Your task to perform on an android device: Open eBay Image 0: 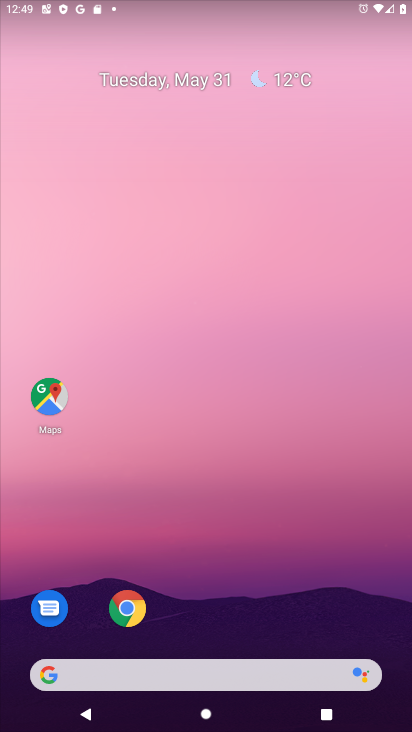
Step 0: drag from (228, 568) to (329, 20)
Your task to perform on an android device: Open eBay Image 1: 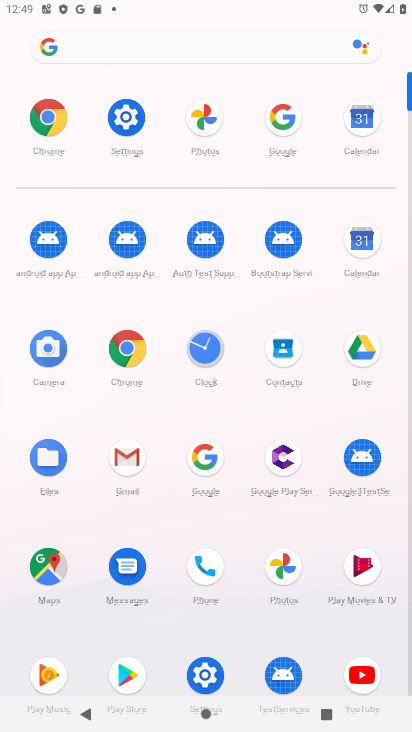
Step 1: click (208, 456)
Your task to perform on an android device: Open eBay Image 2: 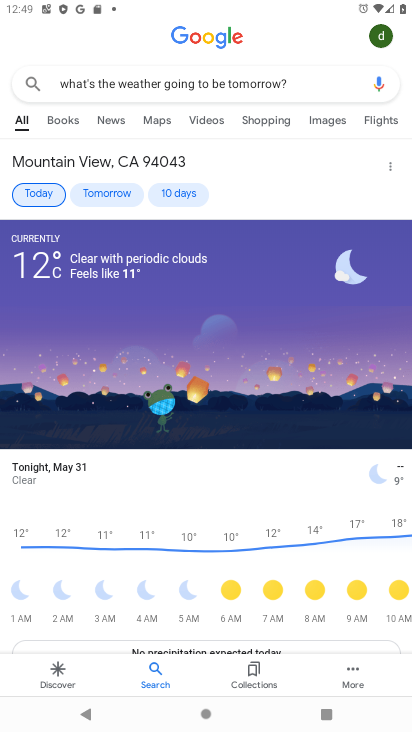
Step 2: click (313, 81)
Your task to perform on an android device: Open eBay Image 3: 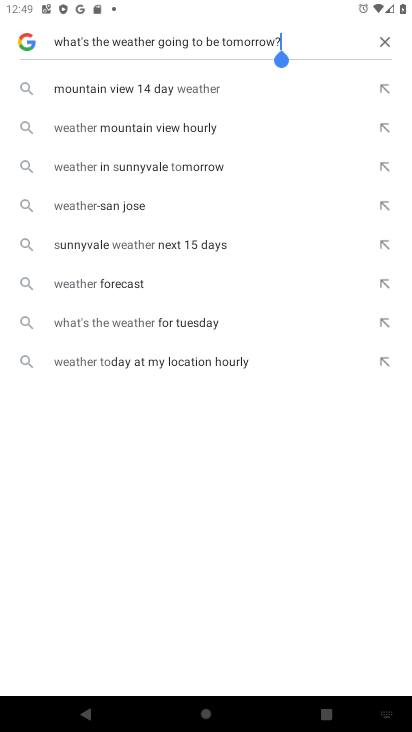
Step 3: click (392, 38)
Your task to perform on an android device: Open eBay Image 4: 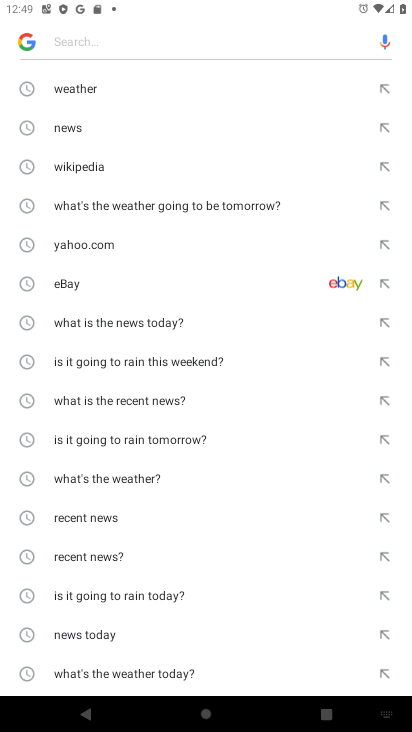
Step 4: click (69, 283)
Your task to perform on an android device: Open eBay Image 5: 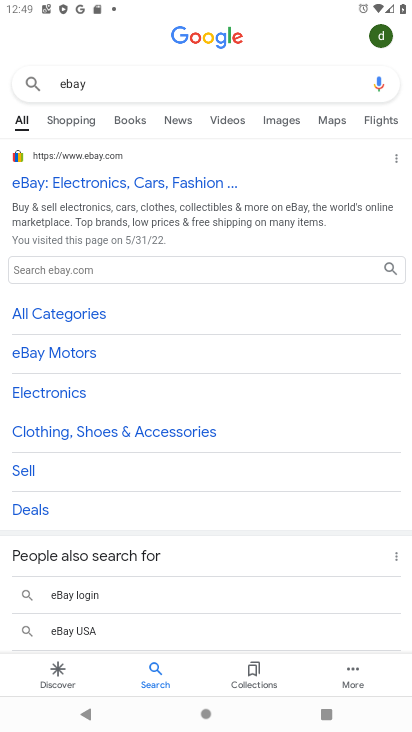
Step 5: click (131, 181)
Your task to perform on an android device: Open eBay Image 6: 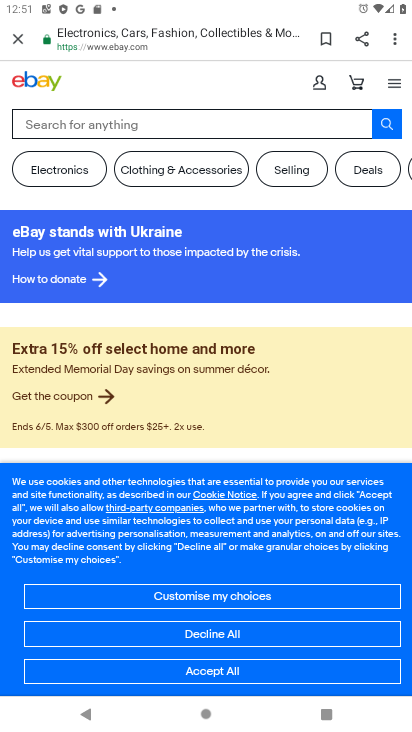
Step 6: task complete